Your task to perform on an android device: turn off translation in the chrome app Image 0: 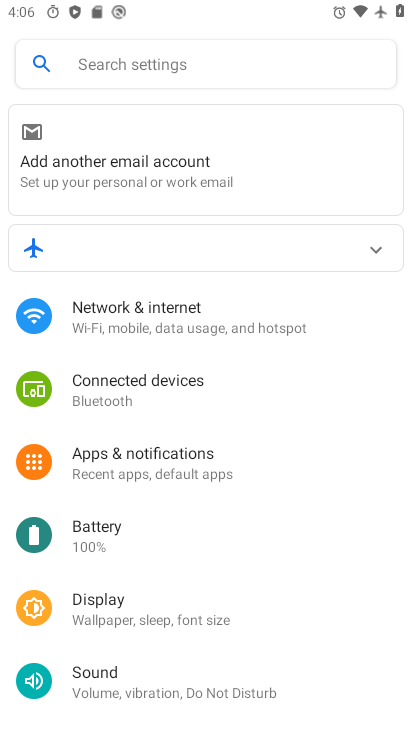
Step 0: press back button
Your task to perform on an android device: turn off translation in the chrome app Image 1: 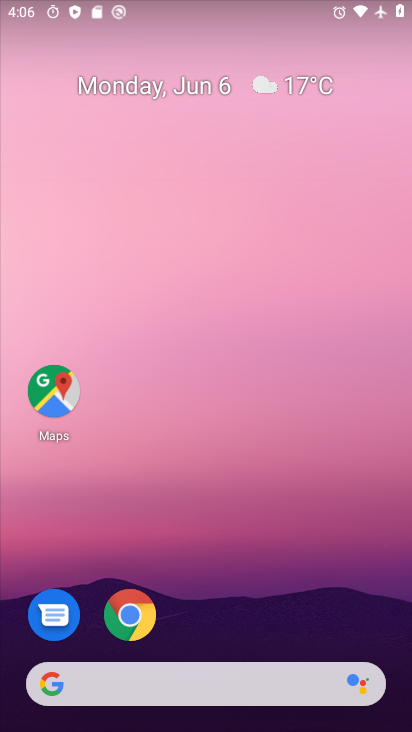
Step 1: drag from (246, 592) to (246, 35)
Your task to perform on an android device: turn off translation in the chrome app Image 2: 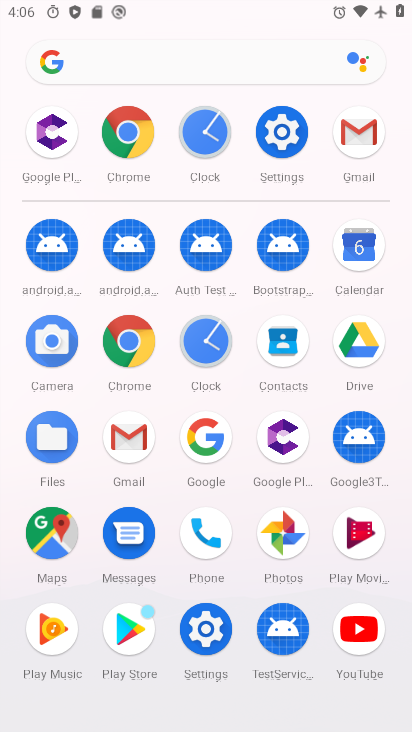
Step 2: click (128, 127)
Your task to perform on an android device: turn off translation in the chrome app Image 3: 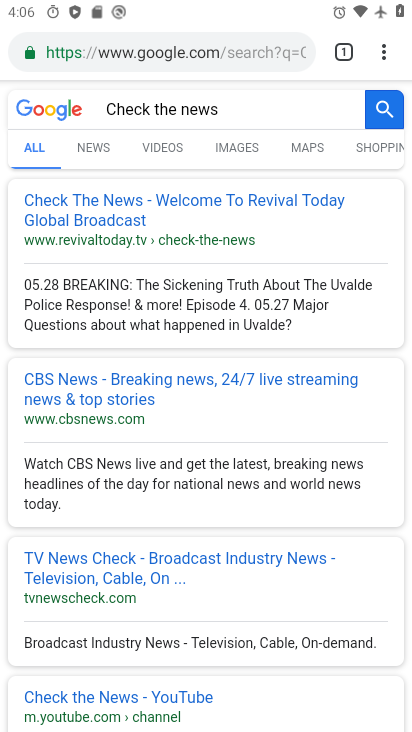
Step 3: drag from (378, 44) to (198, 578)
Your task to perform on an android device: turn off translation in the chrome app Image 4: 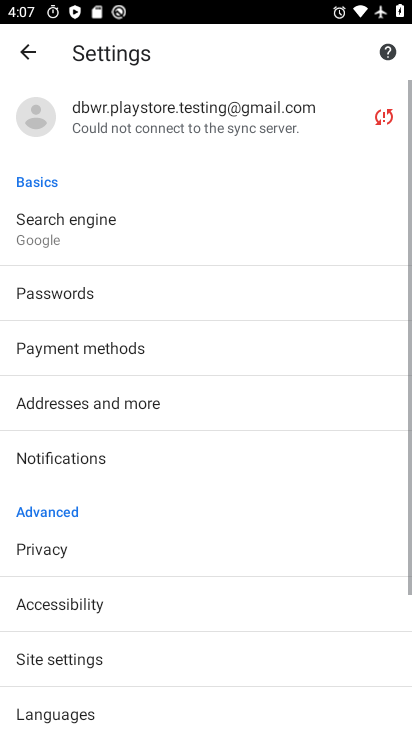
Step 4: drag from (212, 651) to (198, 236)
Your task to perform on an android device: turn off translation in the chrome app Image 5: 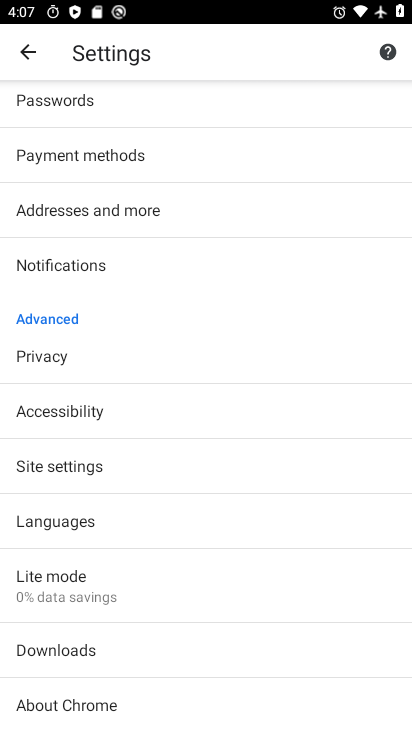
Step 5: click (88, 512)
Your task to perform on an android device: turn off translation in the chrome app Image 6: 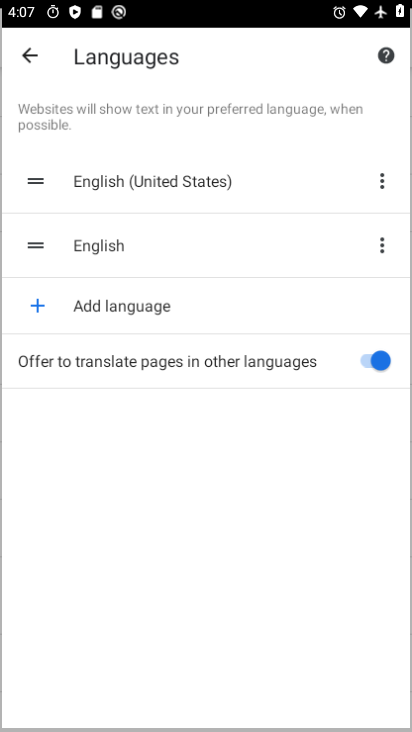
Step 6: click (88, 512)
Your task to perform on an android device: turn off translation in the chrome app Image 7: 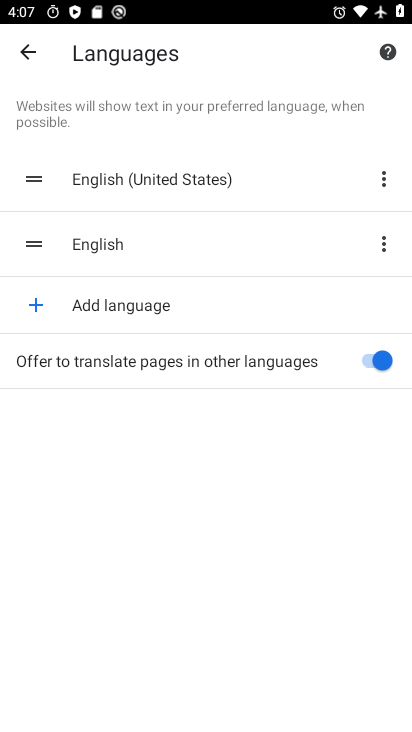
Step 7: click (390, 352)
Your task to perform on an android device: turn off translation in the chrome app Image 8: 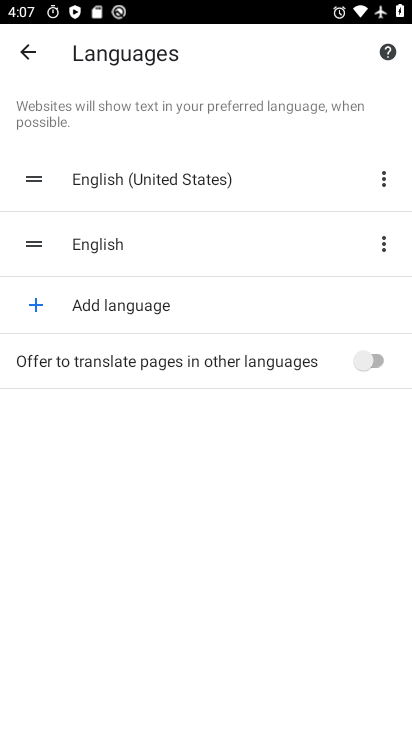
Step 8: task complete